Your task to perform on an android device: turn off location history Image 0: 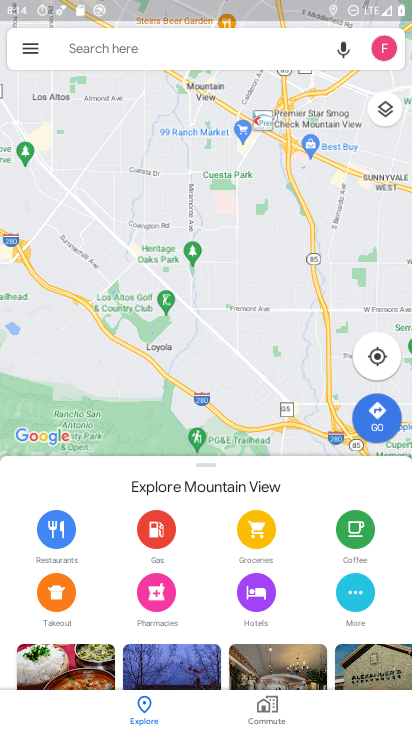
Step 0: press home button
Your task to perform on an android device: turn off location history Image 1: 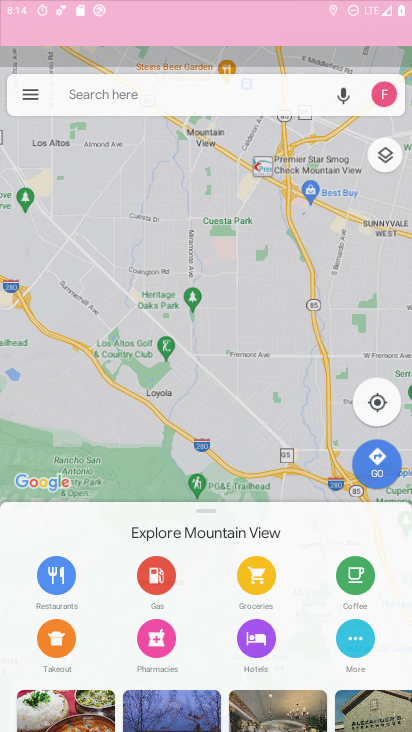
Step 1: drag from (388, 718) to (212, 0)
Your task to perform on an android device: turn off location history Image 2: 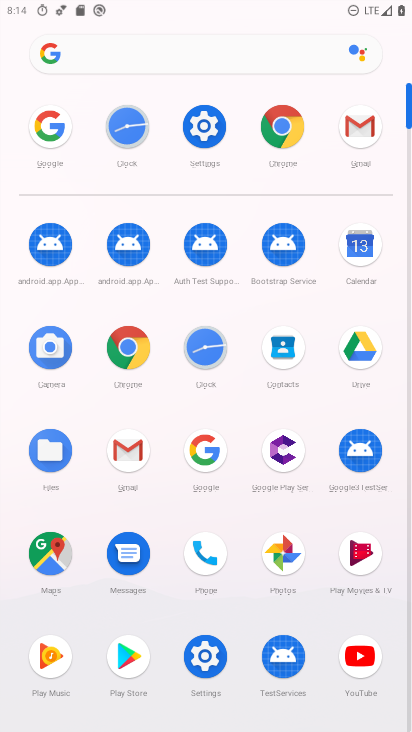
Step 2: click (209, 667)
Your task to perform on an android device: turn off location history Image 3: 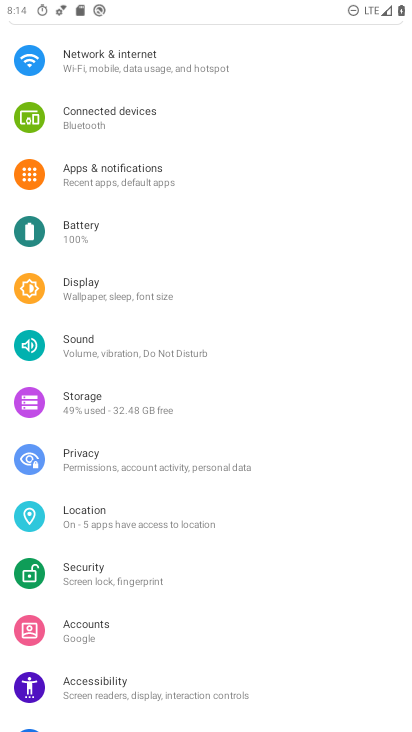
Step 3: click (90, 524)
Your task to perform on an android device: turn off location history Image 4: 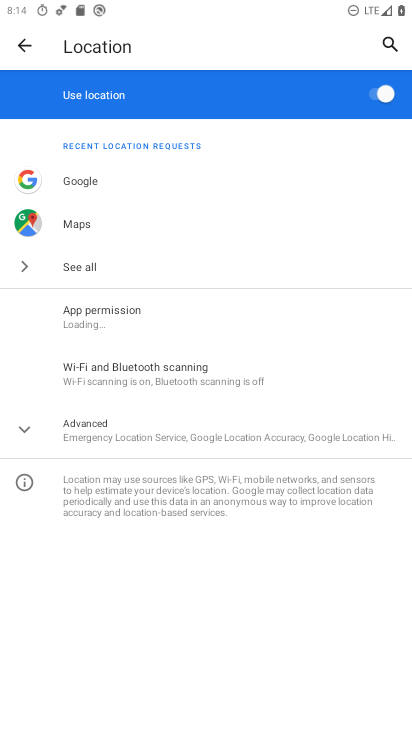
Step 4: click (99, 422)
Your task to perform on an android device: turn off location history Image 5: 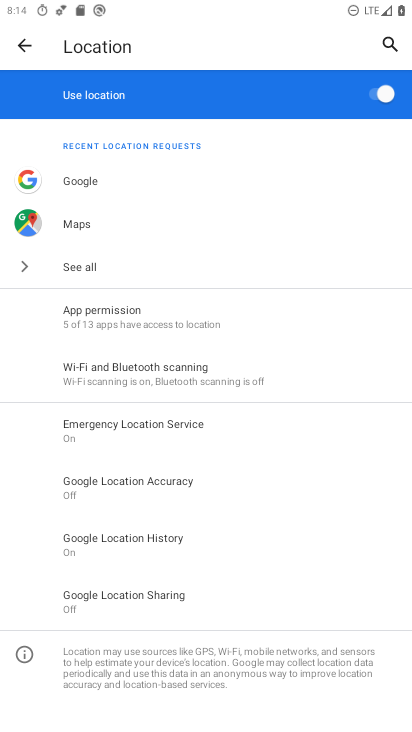
Step 5: click (141, 544)
Your task to perform on an android device: turn off location history Image 6: 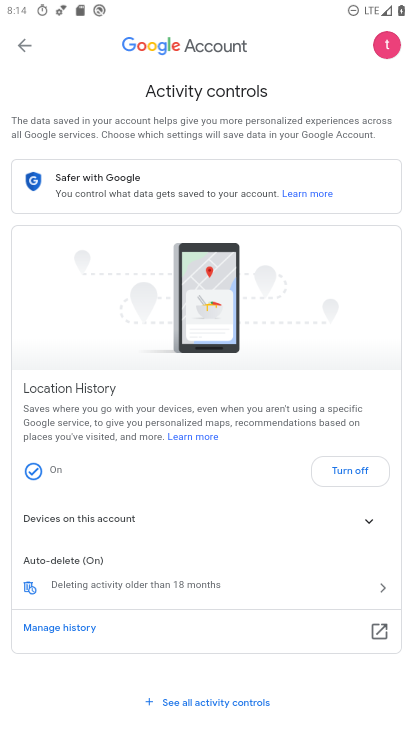
Step 6: click (355, 475)
Your task to perform on an android device: turn off location history Image 7: 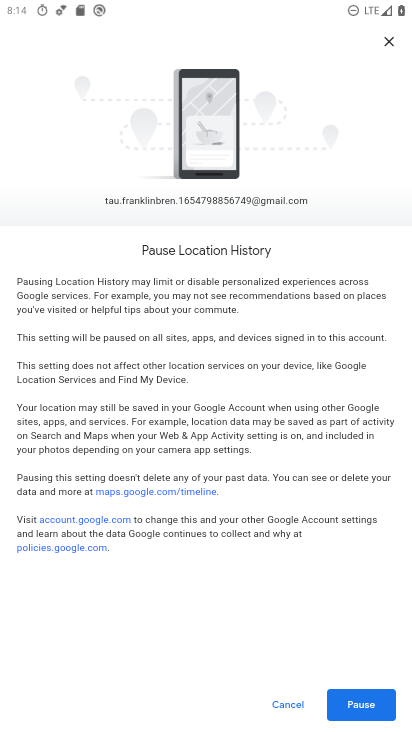
Step 7: task complete